Your task to perform on an android device: Open CNN.com Image 0: 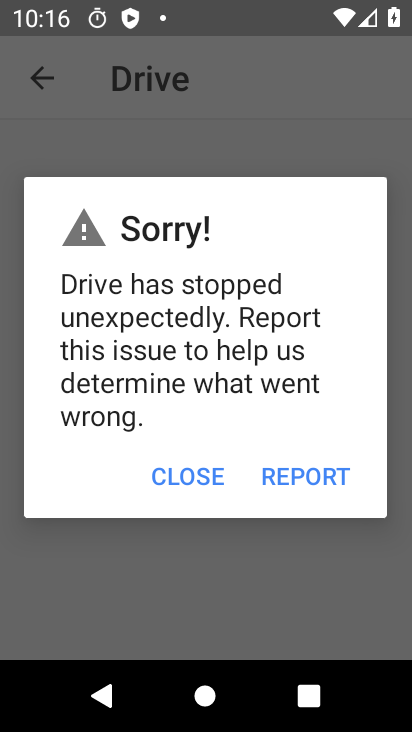
Step 0: press home button
Your task to perform on an android device: Open CNN.com Image 1: 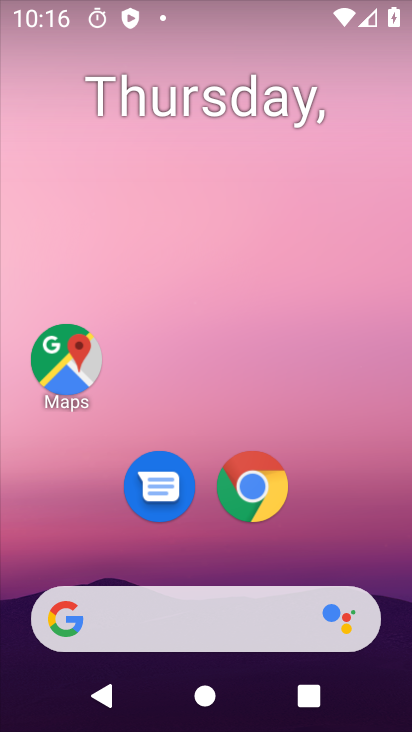
Step 1: click (347, 182)
Your task to perform on an android device: Open CNN.com Image 2: 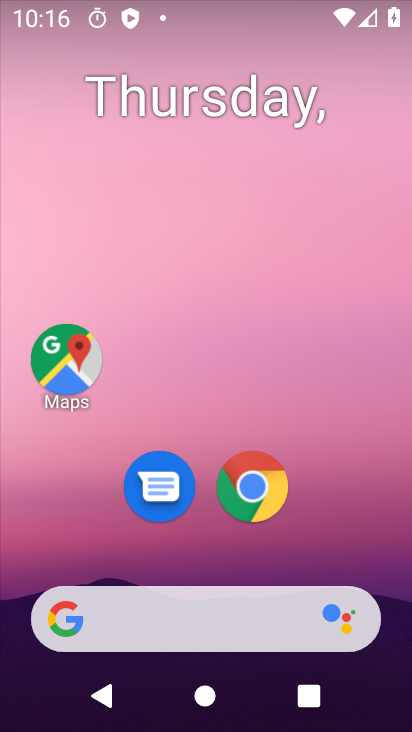
Step 2: drag from (387, 592) to (405, 149)
Your task to perform on an android device: Open CNN.com Image 3: 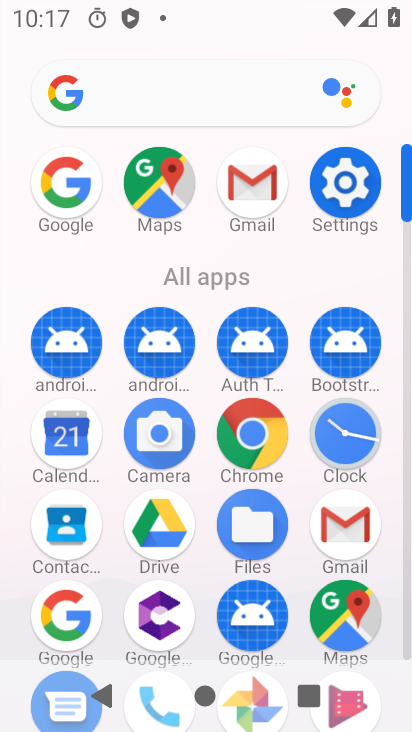
Step 3: click (243, 438)
Your task to perform on an android device: Open CNN.com Image 4: 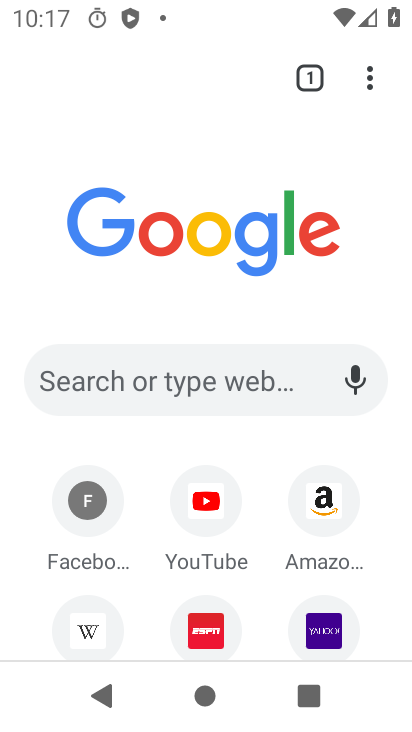
Step 4: click (174, 392)
Your task to perform on an android device: Open CNN.com Image 5: 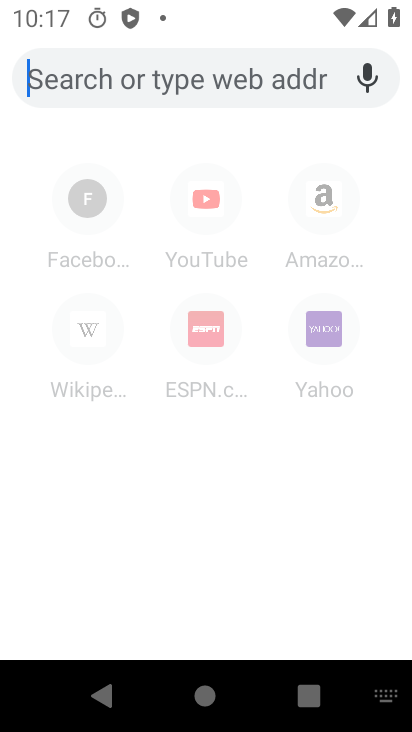
Step 5: type "CNN.com"
Your task to perform on an android device: Open CNN.com Image 6: 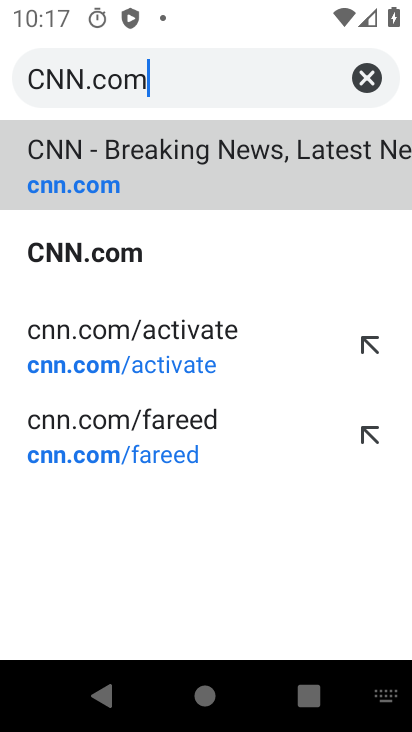
Step 6: click (69, 250)
Your task to perform on an android device: Open CNN.com Image 7: 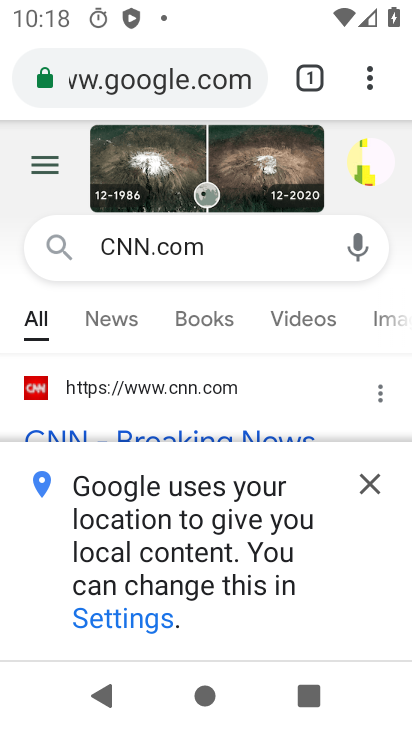
Step 7: click (369, 488)
Your task to perform on an android device: Open CNN.com Image 8: 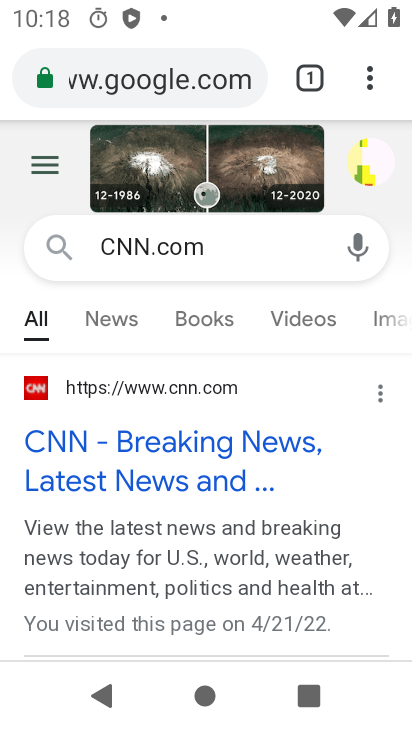
Step 8: task complete